Your task to perform on an android device: set the stopwatch Image 0: 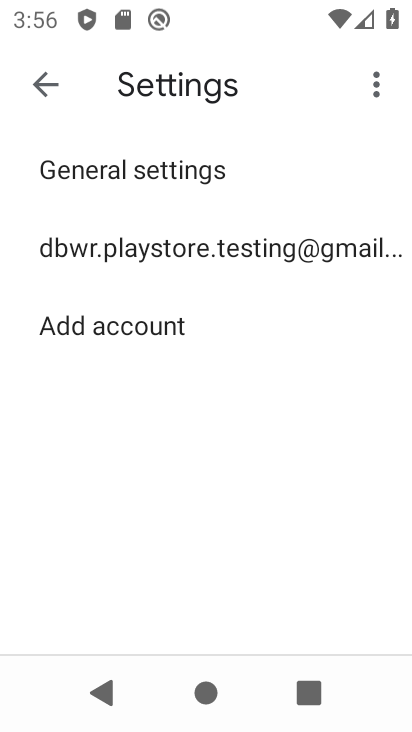
Step 0: press home button
Your task to perform on an android device: set the stopwatch Image 1: 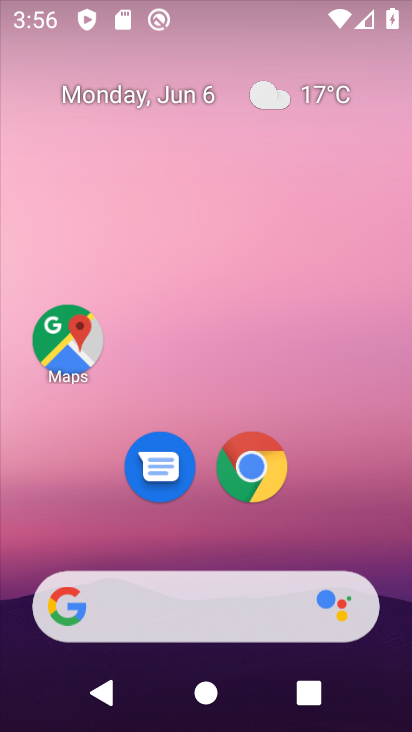
Step 1: drag from (123, 599) to (224, 176)
Your task to perform on an android device: set the stopwatch Image 2: 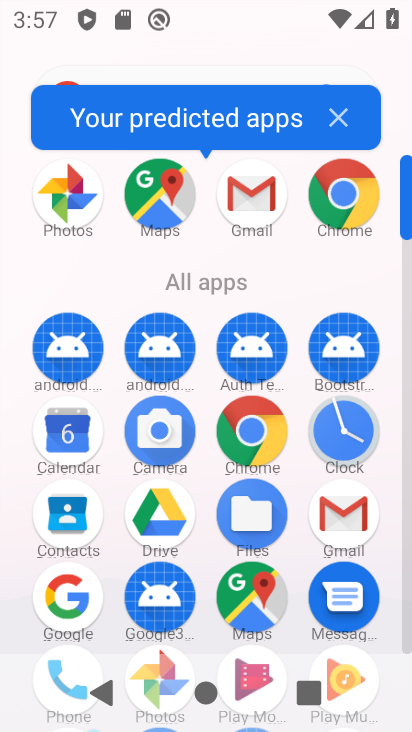
Step 2: click (375, 437)
Your task to perform on an android device: set the stopwatch Image 3: 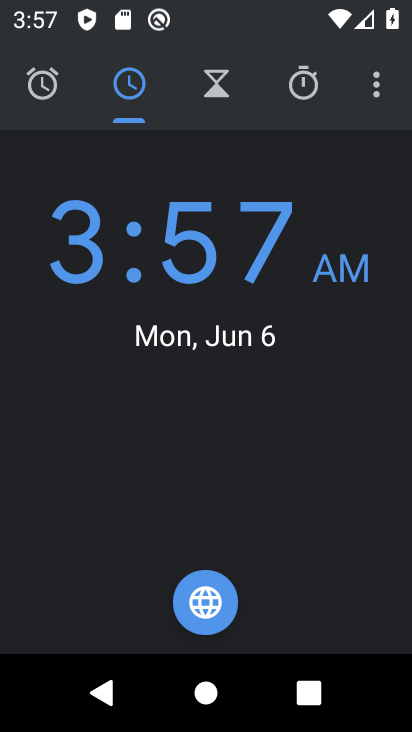
Step 3: click (302, 110)
Your task to perform on an android device: set the stopwatch Image 4: 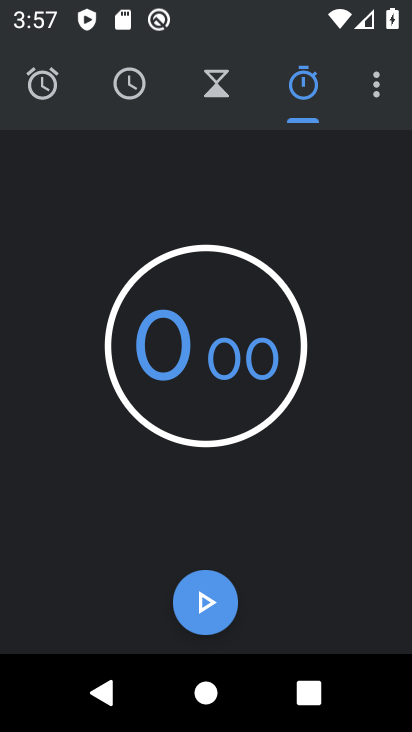
Step 4: click (217, 622)
Your task to perform on an android device: set the stopwatch Image 5: 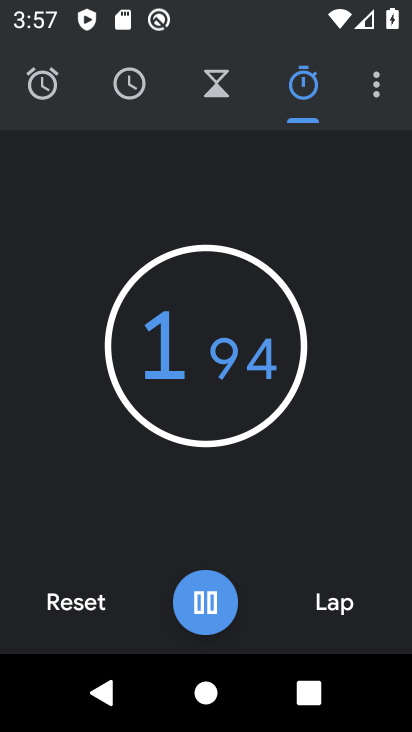
Step 5: task complete